Your task to perform on an android device: open app "Microsoft Excel" (install if not already installed) Image 0: 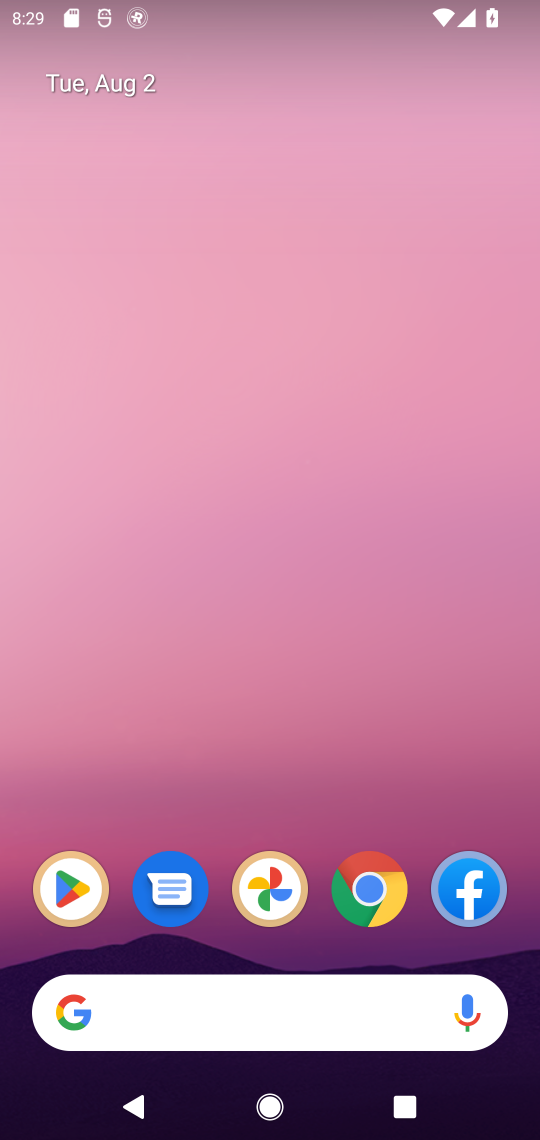
Step 0: press home button
Your task to perform on an android device: open app "Microsoft Excel" (install if not already installed) Image 1: 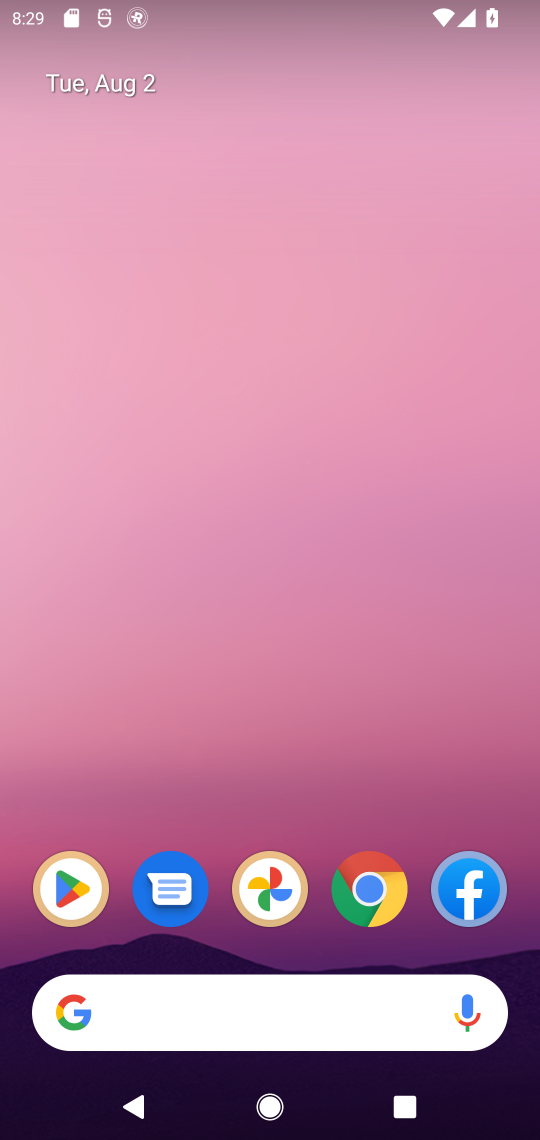
Step 1: click (72, 895)
Your task to perform on an android device: open app "Microsoft Excel" (install if not already installed) Image 2: 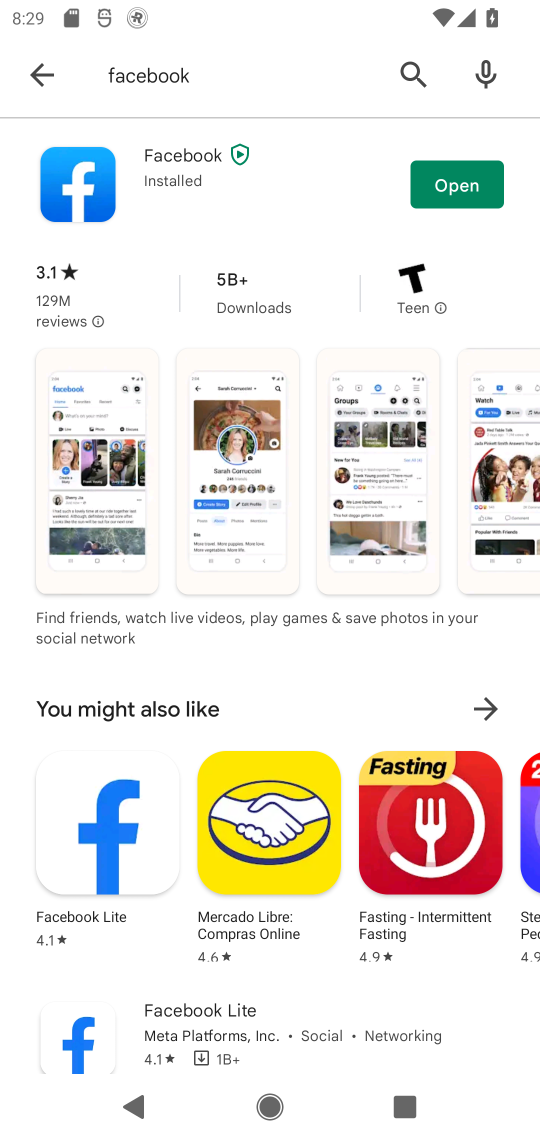
Step 2: click (414, 65)
Your task to perform on an android device: open app "Microsoft Excel" (install if not already installed) Image 3: 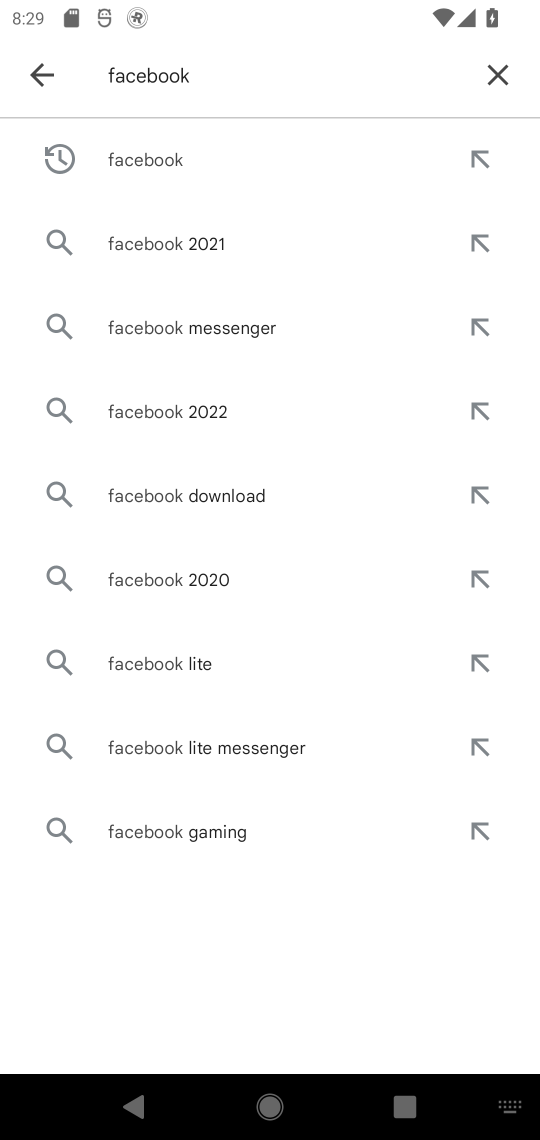
Step 3: click (492, 66)
Your task to perform on an android device: open app "Microsoft Excel" (install if not already installed) Image 4: 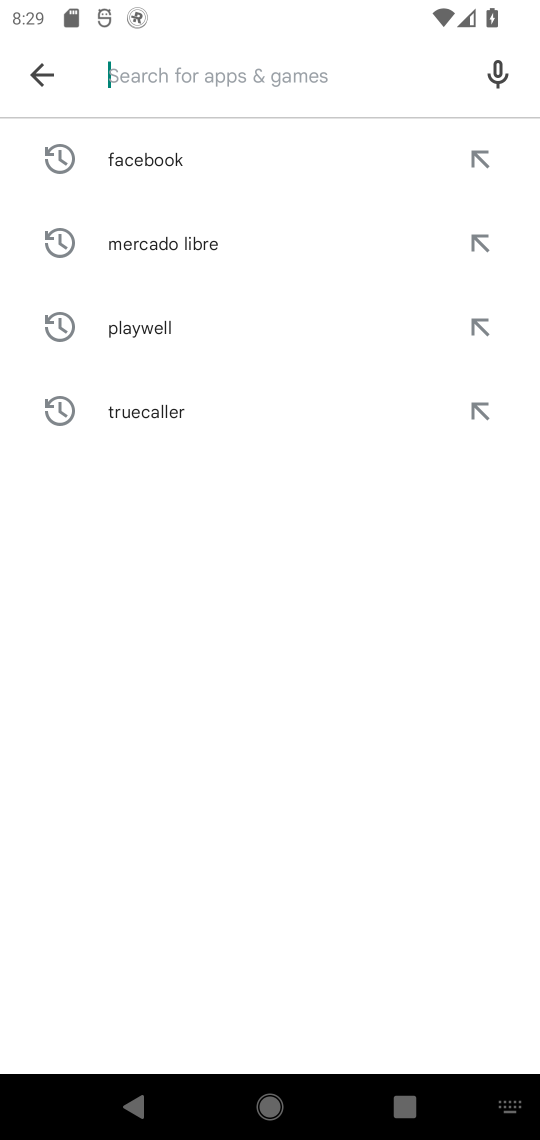
Step 4: type "Microsoft Excel"
Your task to perform on an android device: open app "Microsoft Excel" (install if not already installed) Image 5: 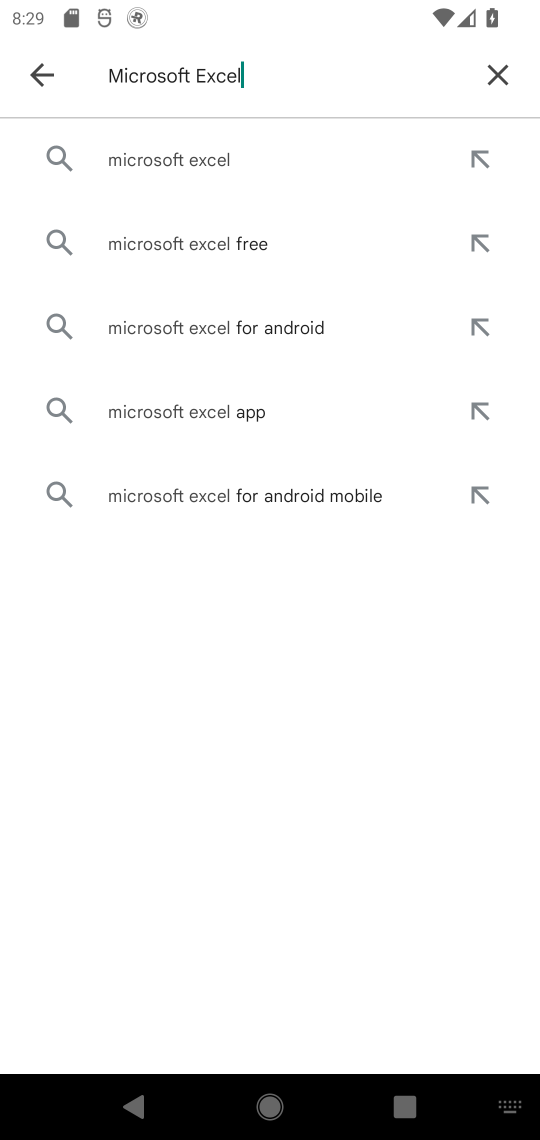
Step 5: click (162, 167)
Your task to perform on an android device: open app "Microsoft Excel" (install if not already installed) Image 6: 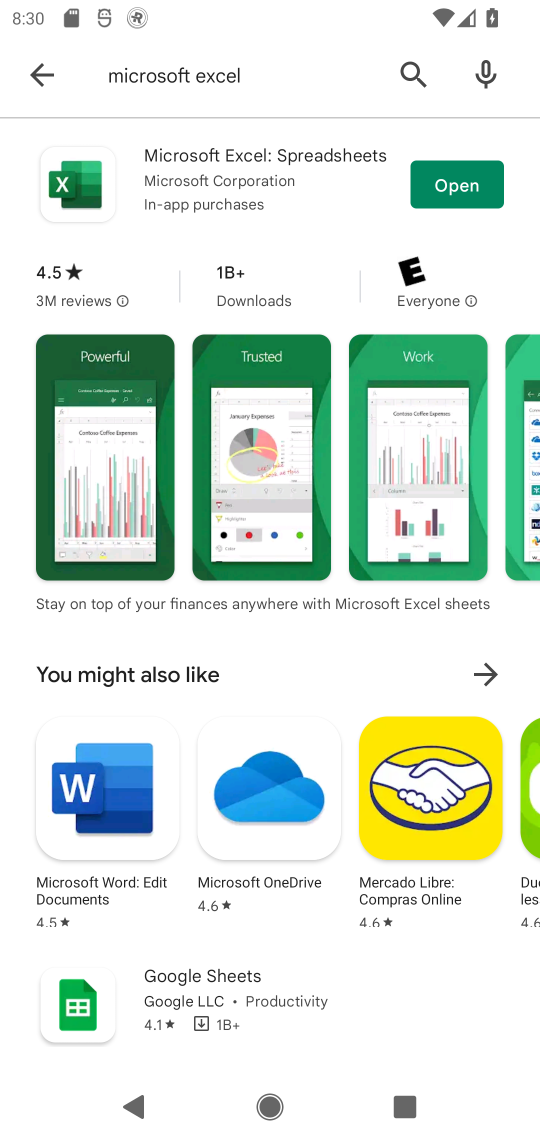
Step 6: click (448, 188)
Your task to perform on an android device: open app "Microsoft Excel" (install if not already installed) Image 7: 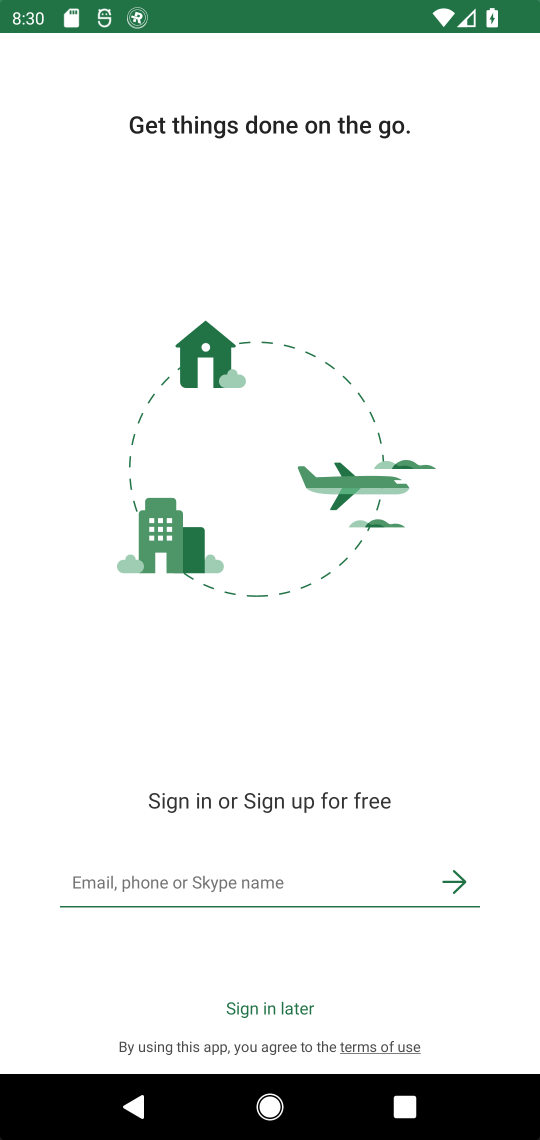
Step 7: task complete